Your task to perform on an android device: Show me productivity apps on the Play Store Image 0: 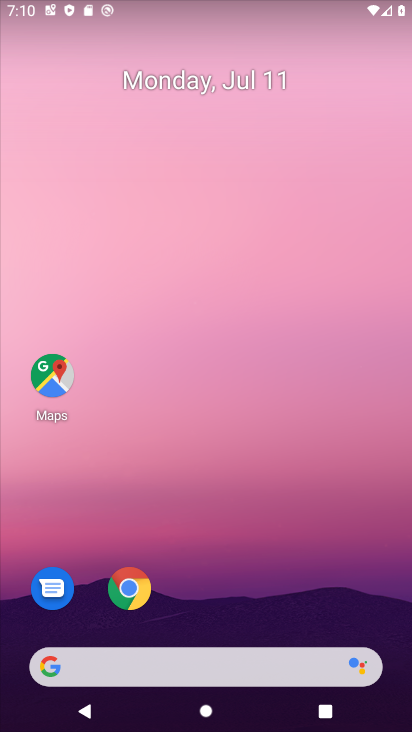
Step 0: drag from (374, 635) to (203, 63)
Your task to perform on an android device: Show me productivity apps on the Play Store Image 1: 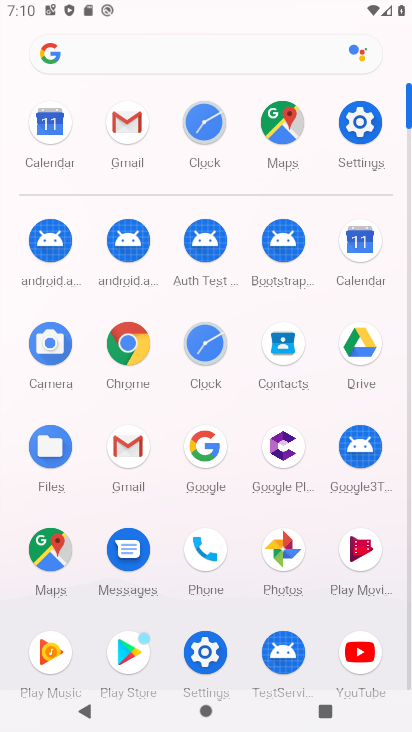
Step 1: click (117, 669)
Your task to perform on an android device: Show me productivity apps on the Play Store Image 2: 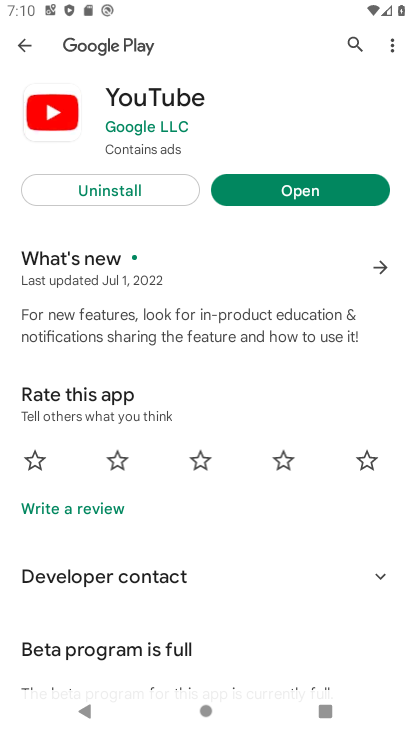
Step 2: press back button
Your task to perform on an android device: Show me productivity apps on the Play Store Image 3: 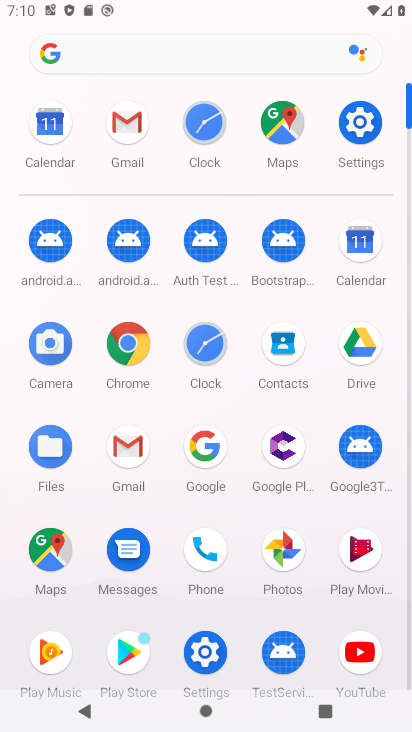
Step 3: click (126, 673)
Your task to perform on an android device: Show me productivity apps on the Play Store Image 4: 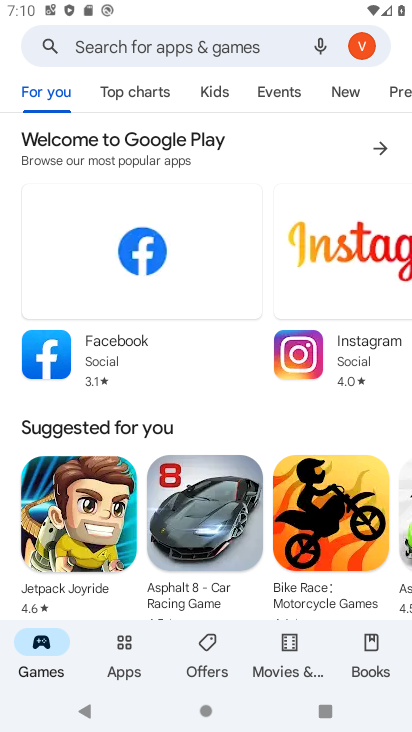
Step 4: task complete